Your task to perform on an android device: open sync settings in chrome Image 0: 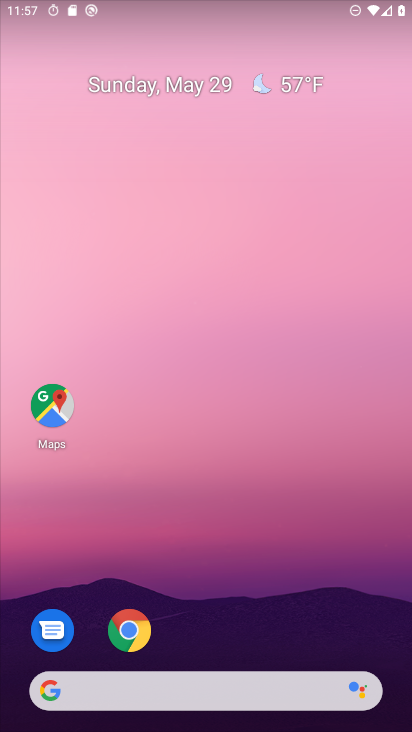
Step 0: press home button
Your task to perform on an android device: open sync settings in chrome Image 1: 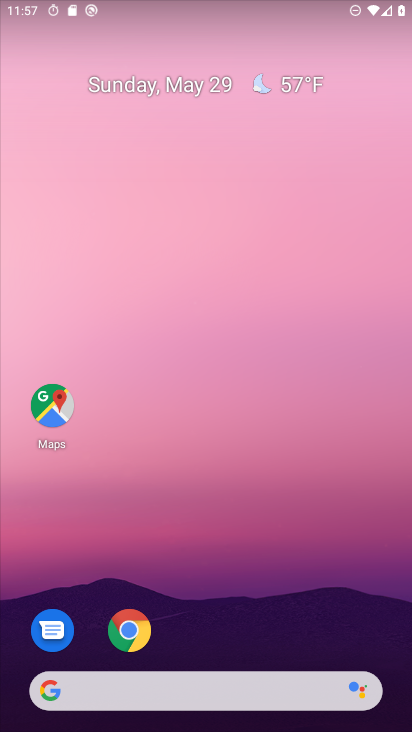
Step 1: drag from (254, 686) to (242, 188)
Your task to perform on an android device: open sync settings in chrome Image 2: 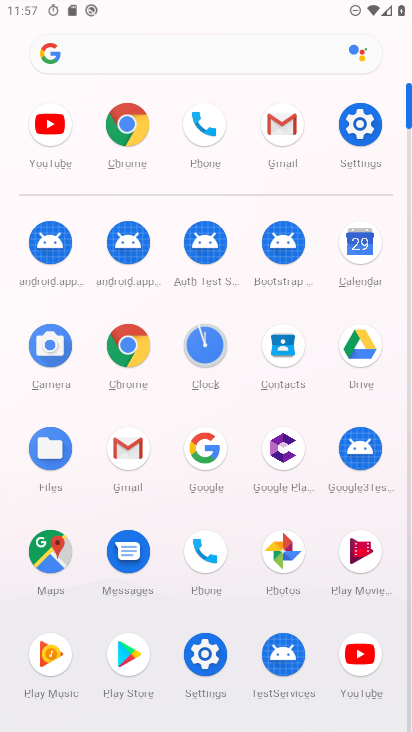
Step 2: click (125, 129)
Your task to perform on an android device: open sync settings in chrome Image 3: 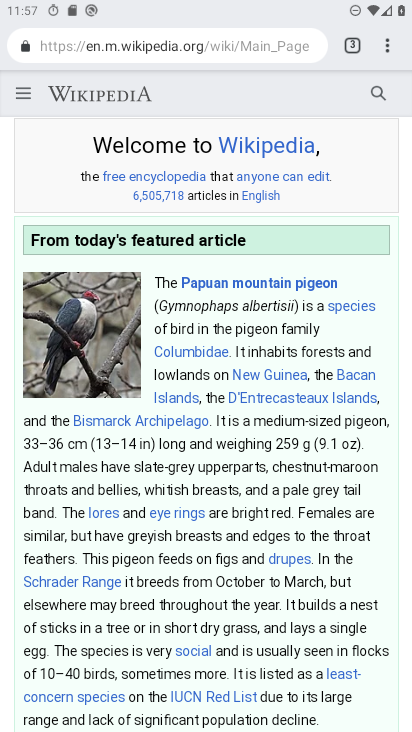
Step 3: click (382, 46)
Your task to perform on an android device: open sync settings in chrome Image 4: 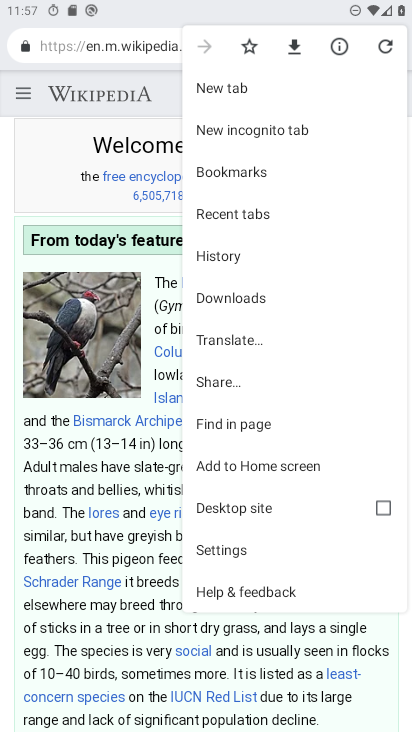
Step 4: click (223, 544)
Your task to perform on an android device: open sync settings in chrome Image 5: 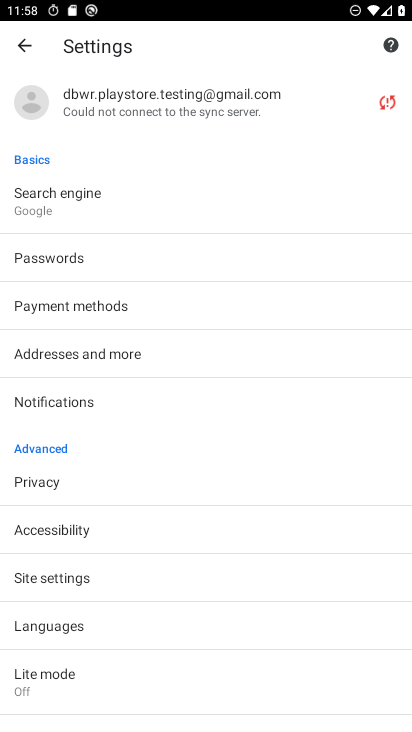
Step 5: click (115, 569)
Your task to perform on an android device: open sync settings in chrome Image 6: 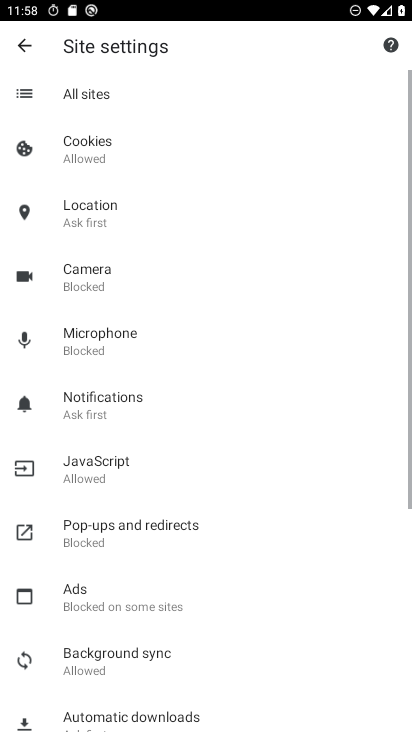
Step 6: click (145, 649)
Your task to perform on an android device: open sync settings in chrome Image 7: 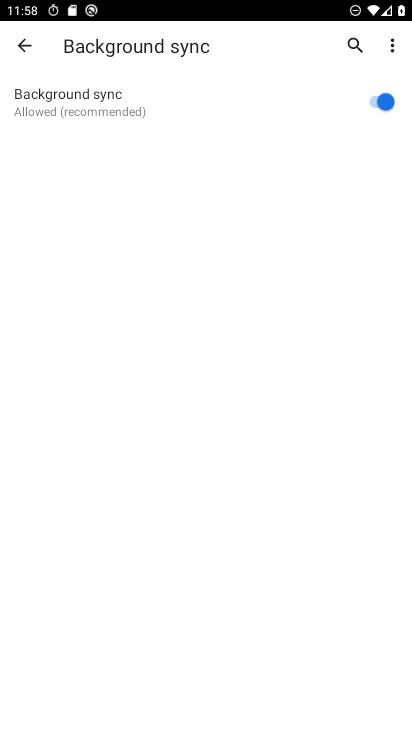
Step 7: task complete